Your task to perform on an android device: Check the news Image 0: 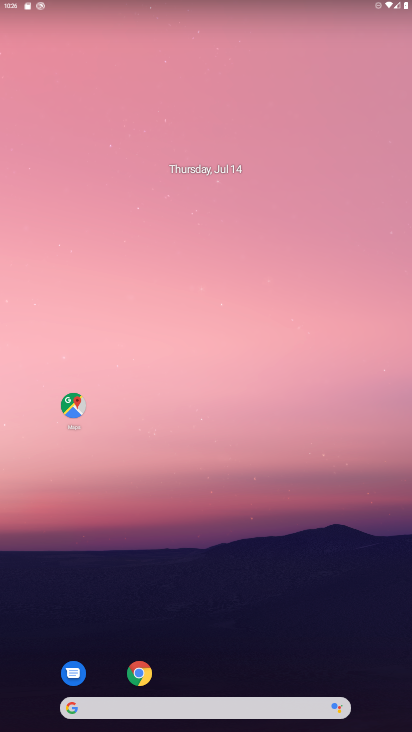
Step 0: drag from (18, 280) to (341, 319)
Your task to perform on an android device: Check the news Image 1: 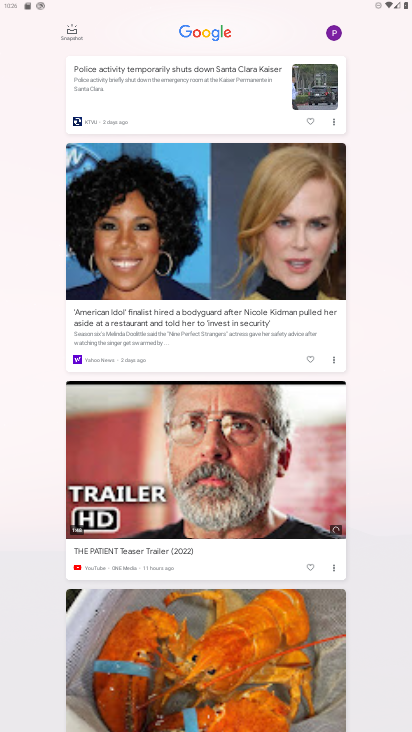
Step 1: task complete